Your task to perform on an android device: What's the weather going to be this weekend? Image 0: 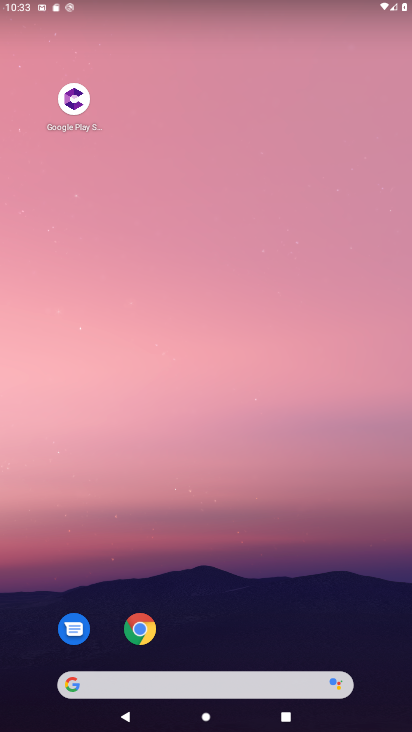
Step 0: click (236, 634)
Your task to perform on an android device: What's the weather going to be this weekend? Image 1: 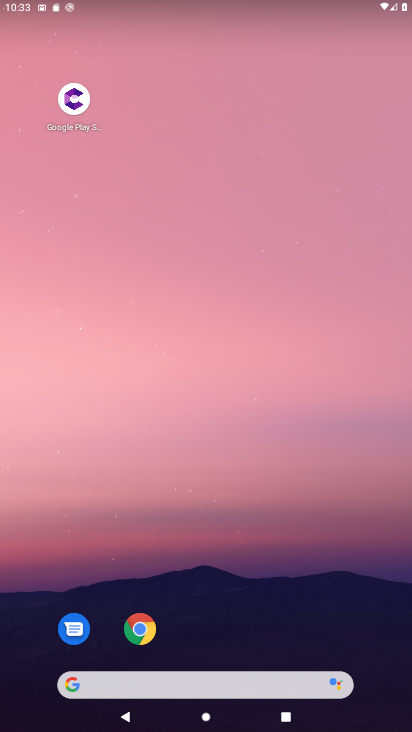
Step 1: click (199, 682)
Your task to perform on an android device: What's the weather going to be this weekend? Image 2: 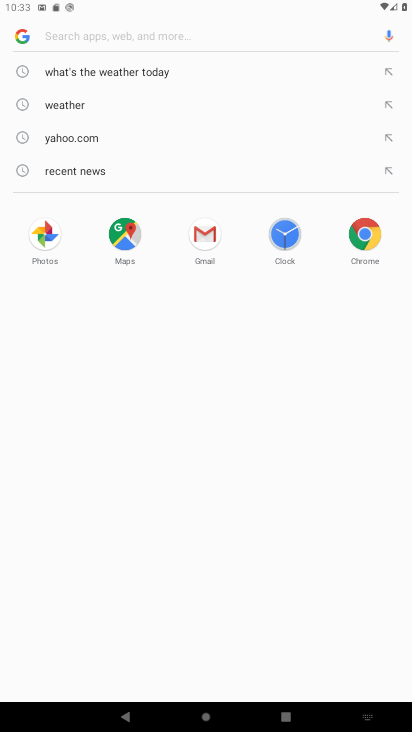
Step 2: type "weather this weekend"
Your task to perform on an android device: What's the weather going to be this weekend? Image 3: 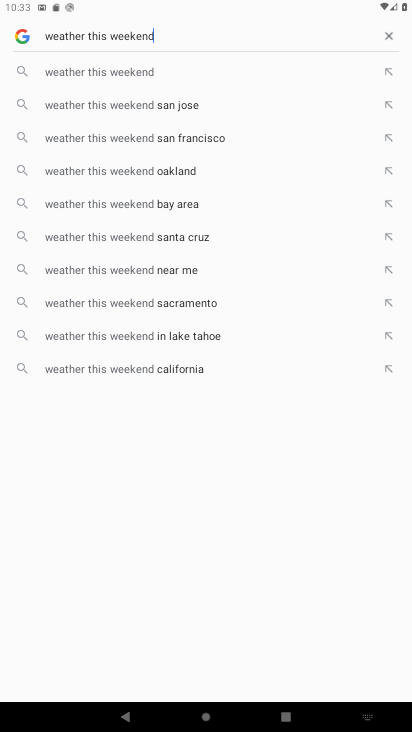
Step 3: click (162, 63)
Your task to perform on an android device: What's the weather going to be this weekend? Image 4: 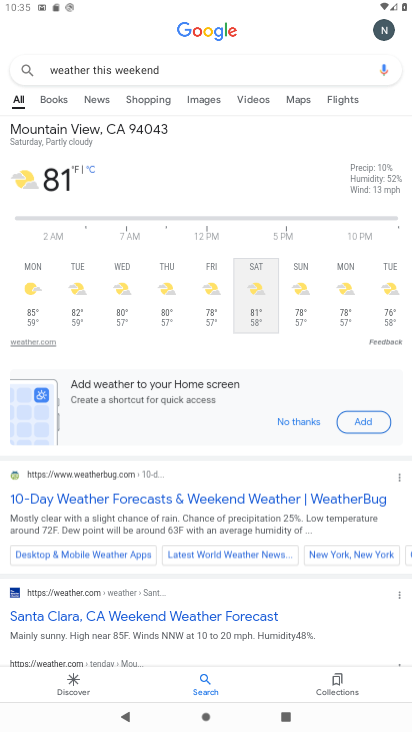
Step 4: task complete